Your task to perform on an android device: change the clock style Image 0: 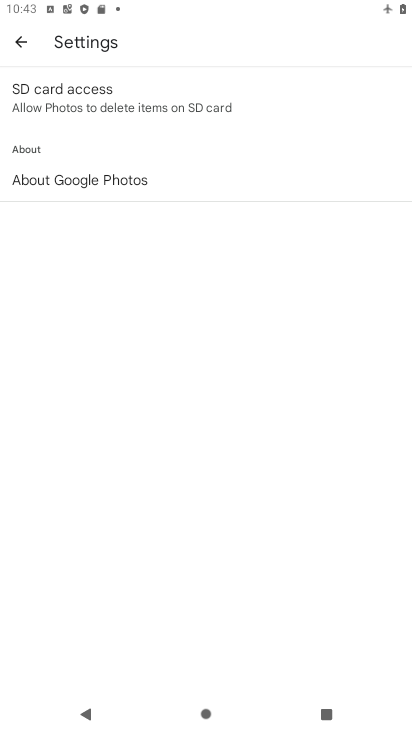
Step 0: press home button
Your task to perform on an android device: change the clock style Image 1: 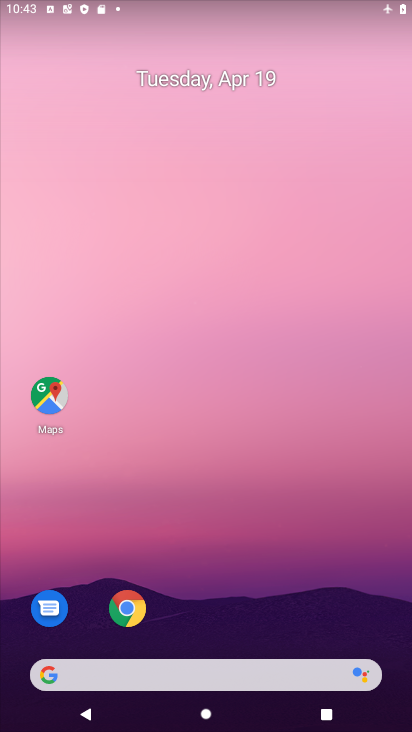
Step 1: drag from (368, 619) to (330, 138)
Your task to perform on an android device: change the clock style Image 2: 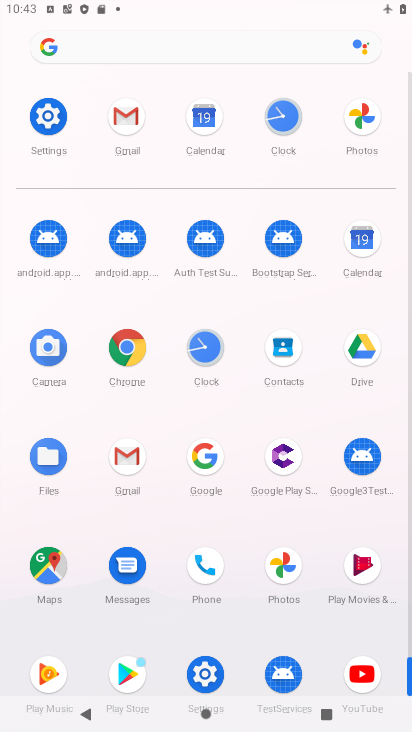
Step 2: click (203, 347)
Your task to perform on an android device: change the clock style Image 3: 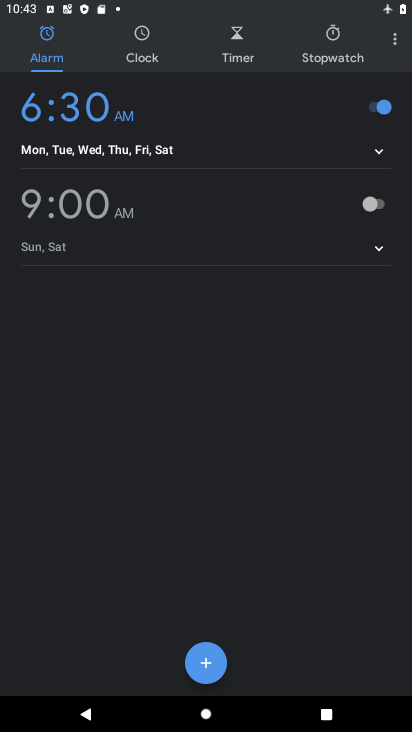
Step 3: click (394, 40)
Your task to perform on an android device: change the clock style Image 4: 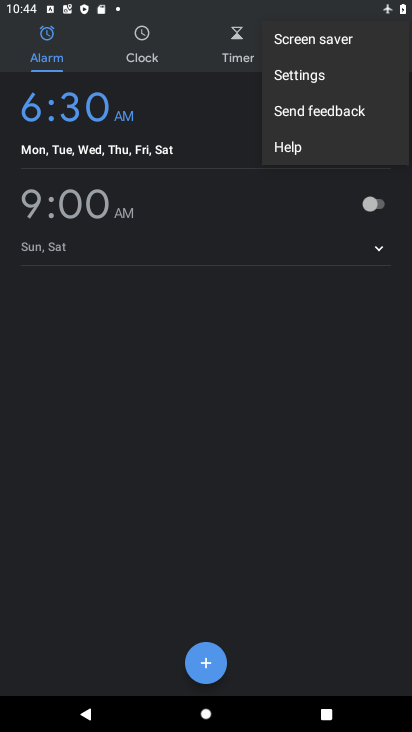
Step 4: click (296, 76)
Your task to perform on an android device: change the clock style Image 5: 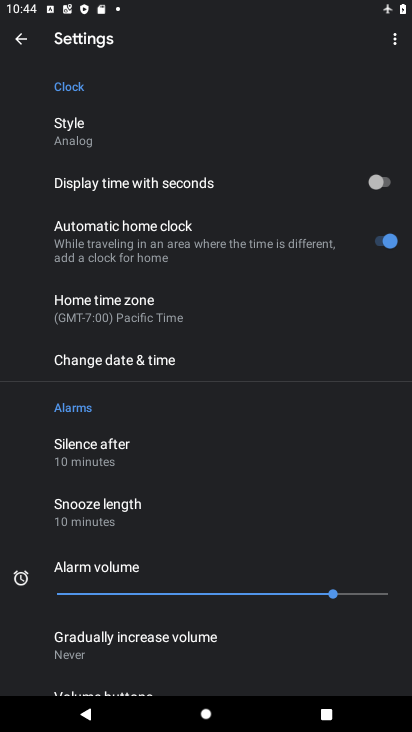
Step 5: click (64, 134)
Your task to perform on an android device: change the clock style Image 6: 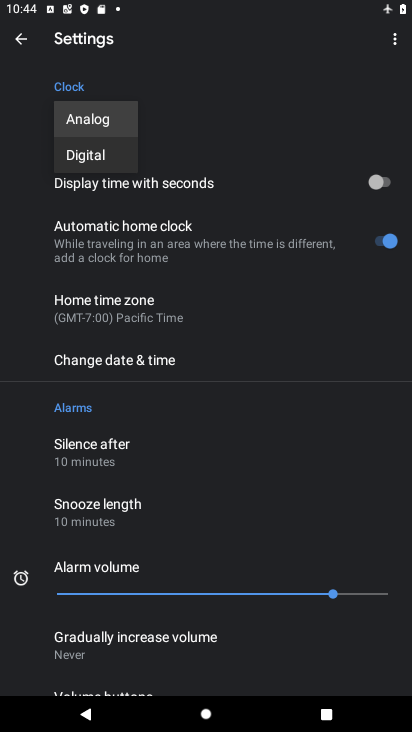
Step 6: click (88, 157)
Your task to perform on an android device: change the clock style Image 7: 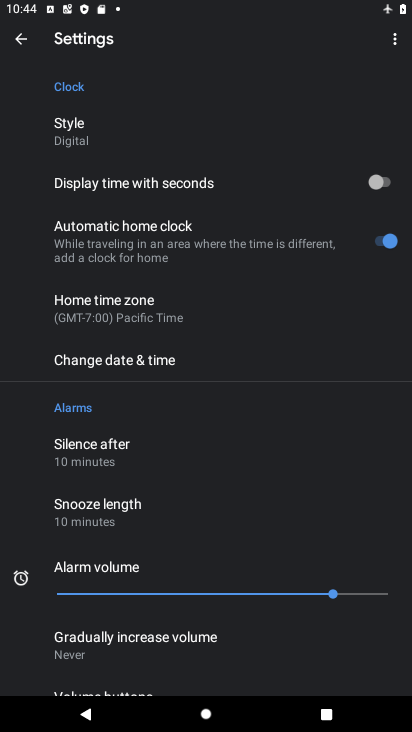
Step 7: task complete